Your task to perform on an android device: turn off smart reply in the gmail app Image 0: 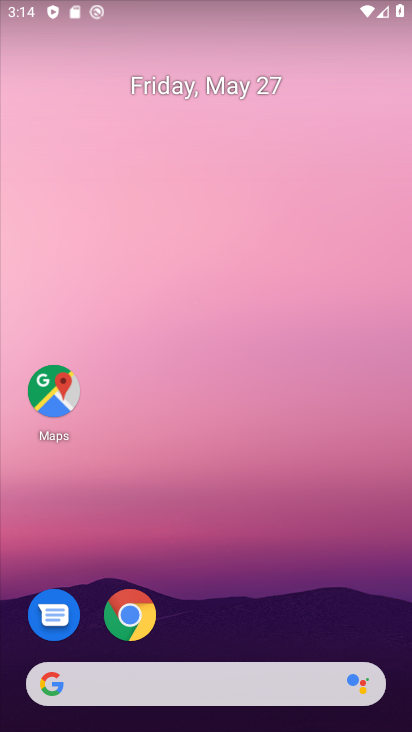
Step 0: drag from (116, 728) to (192, 24)
Your task to perform on an android device: turn off smart reply in the gmail app Image 1: 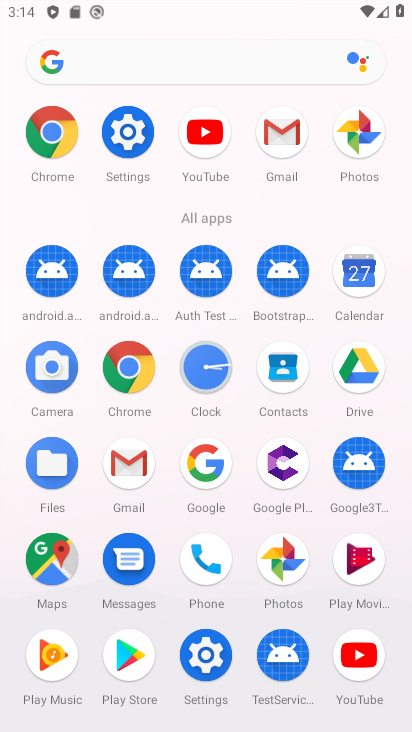
Step 1: click (284, 132)
Your task to perform on an android device: turn off smart reply in the gmail app Image 2: 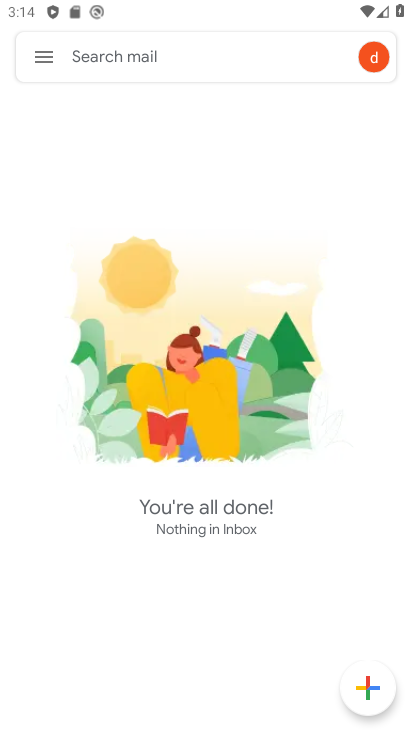
Step 2: click (50, 57)
Your task to perform on an android device: turn off smart reply in the gmail app Image 3: 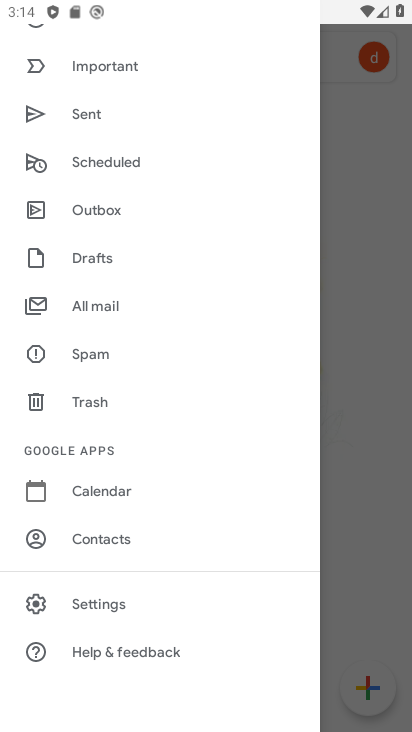
Step 3: click (118, 605)
Your task to perform on an android device: turn off smart reply in the gmail app Image 4: 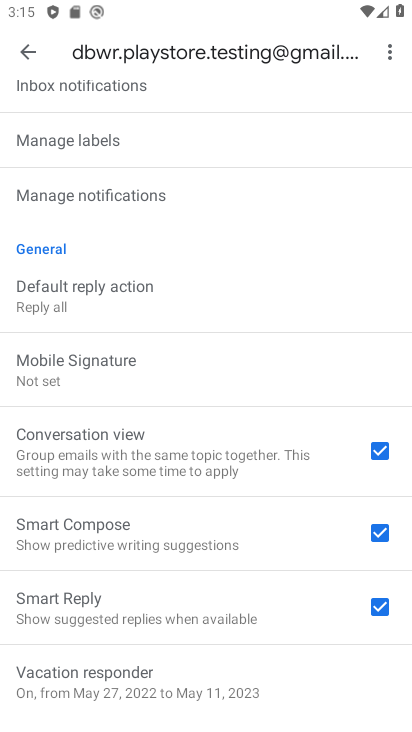
Step 4: click (387, 602)
Your task to perform on an android device: turn off smart reply in the gmail app Image 5: 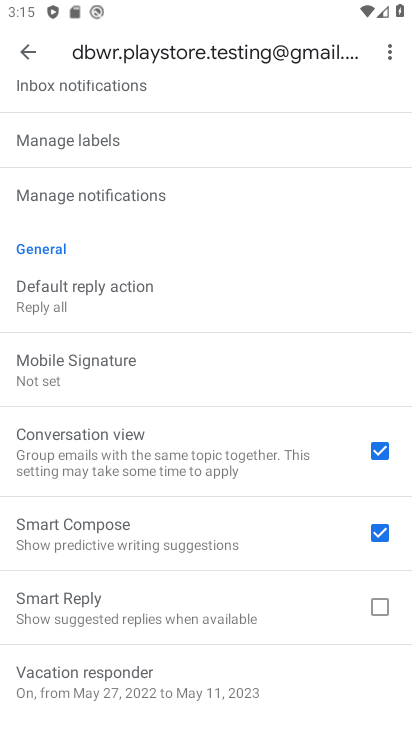
Step 5: task complete